Your task to perform on an android device: Open Chrome and go to the settings page Image 0: 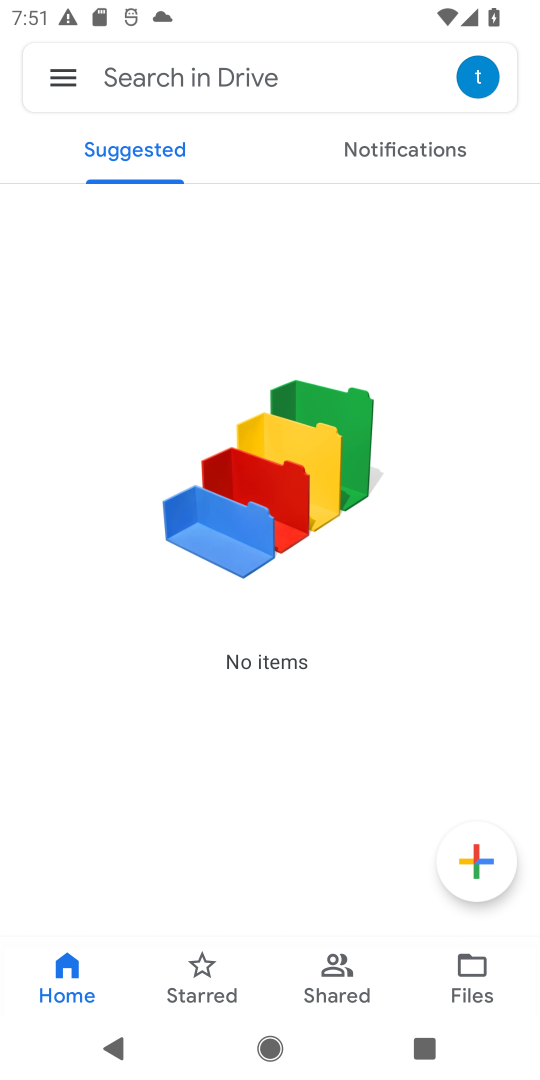
Step 0: press home button
Your task to perform on an android device: Open Chrome and go to the settings page Image 1: 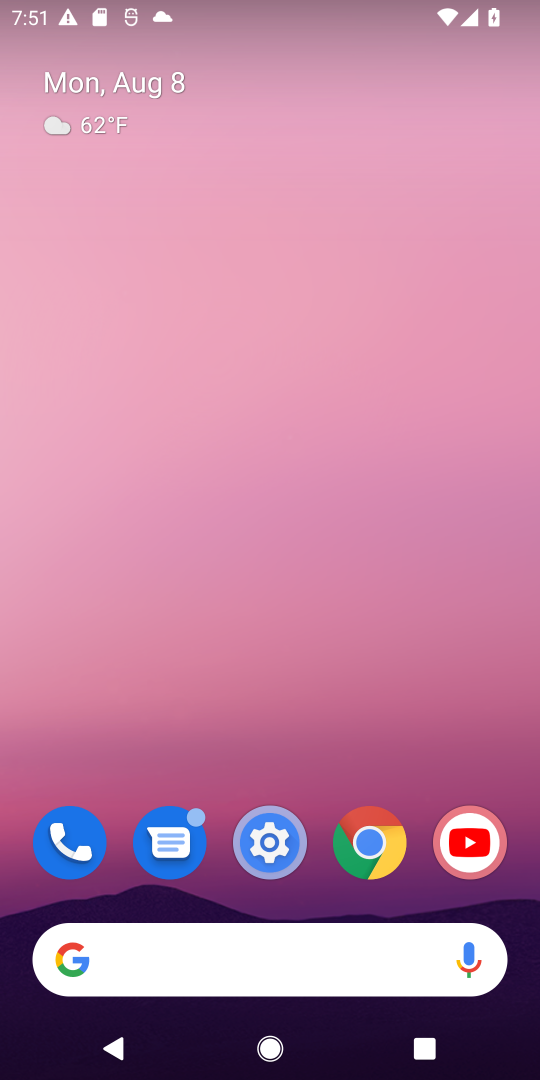
Step 1: click (371, 836)
Your task to perform on an android device: Open Chrome and go to the settings page Image 2: 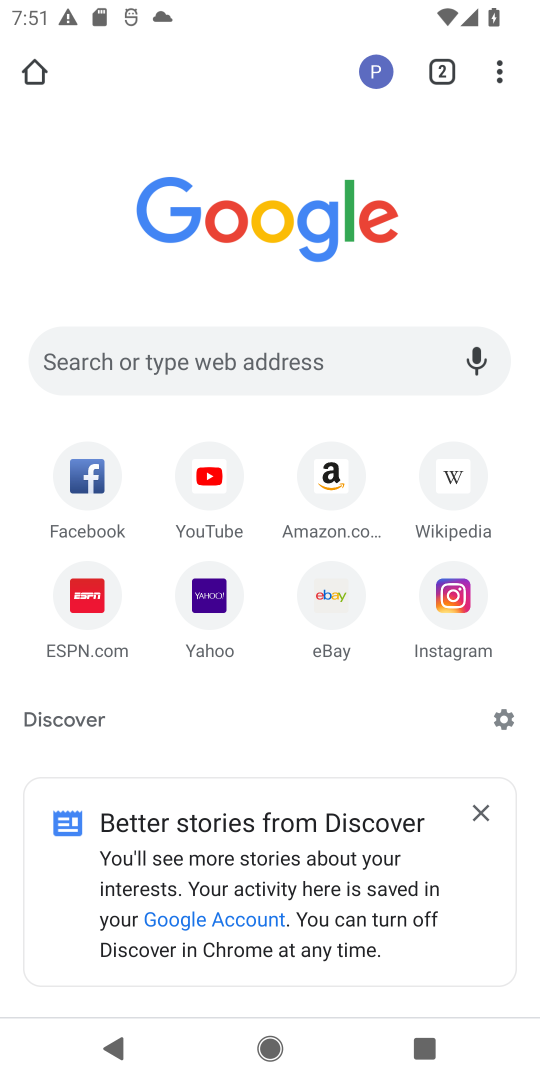
Step 2: click (504, 72)
Your task to perform on an android device: Open Chrome and go to the settings page Image 3: 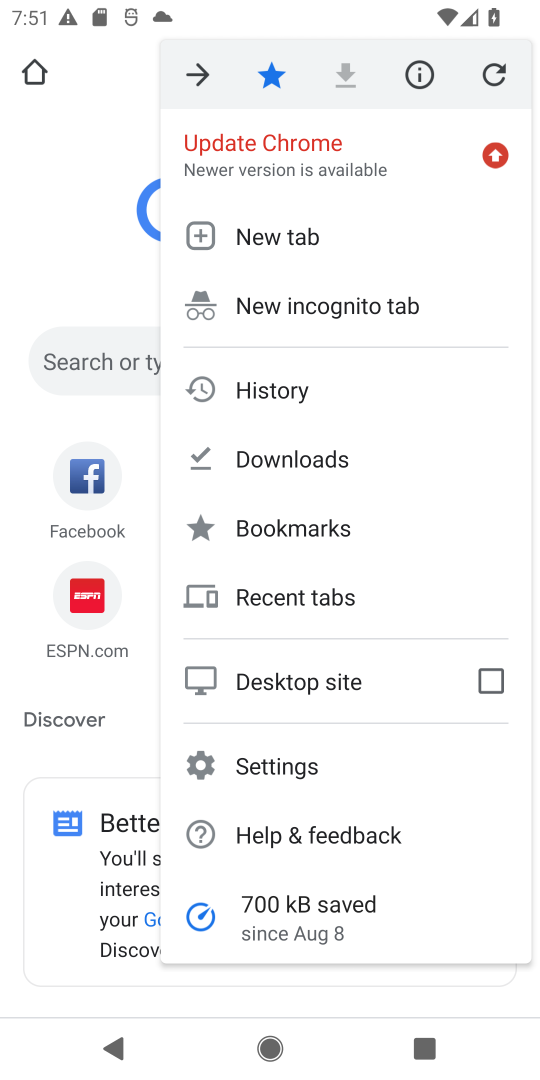
Step 3: click (281, 760)
Your task to perform on an android device: Open Chrome and go to the settings page Image 4: 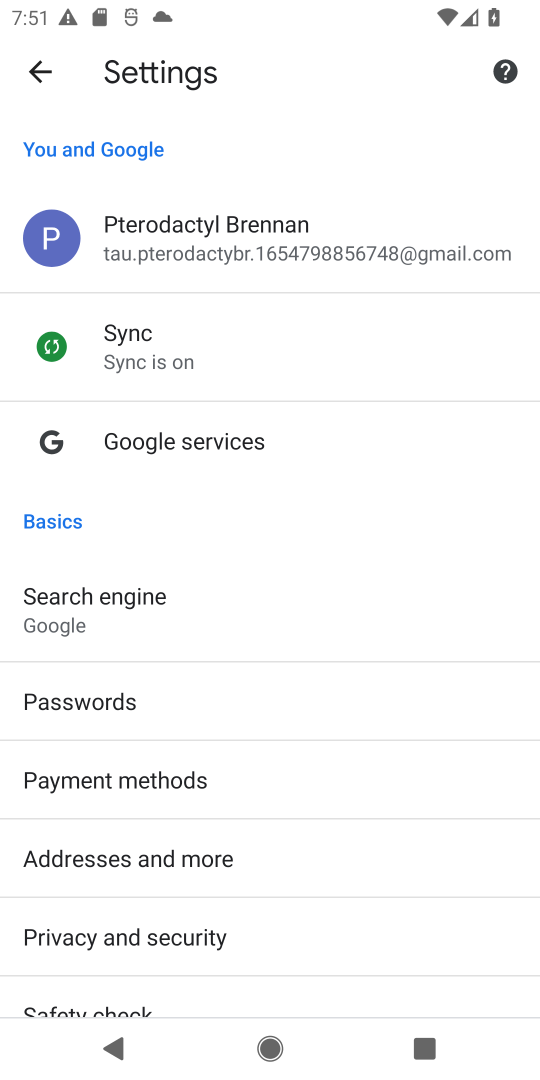
Step 4: task complete